Your task to perform on an android device: delete a single message in the gmail app Image 0: 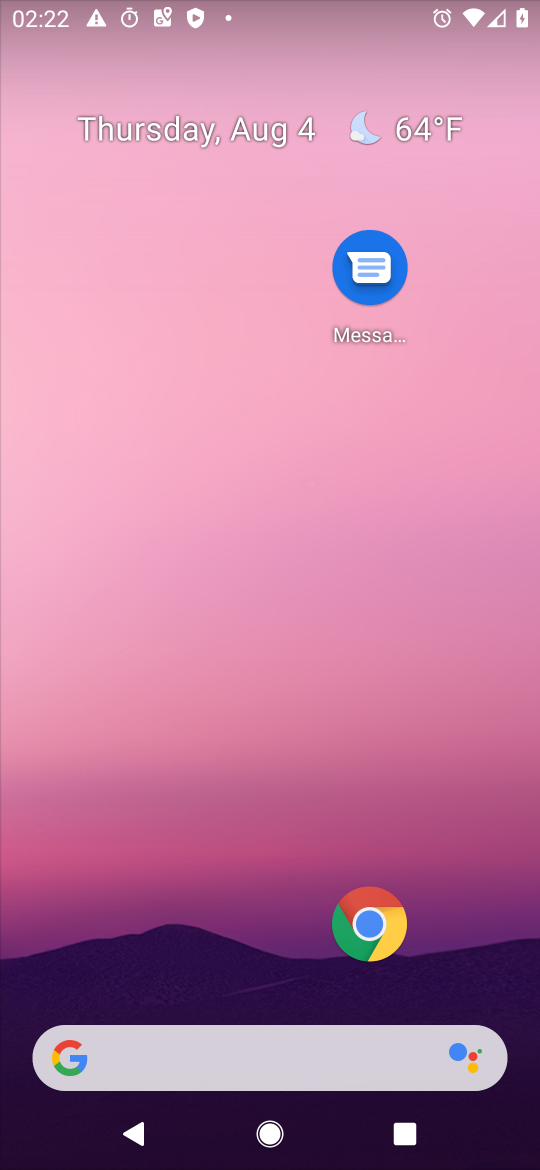
Step 0: press home button
Your task to perform on an android device: delete a single message in the gmail app Image 1: 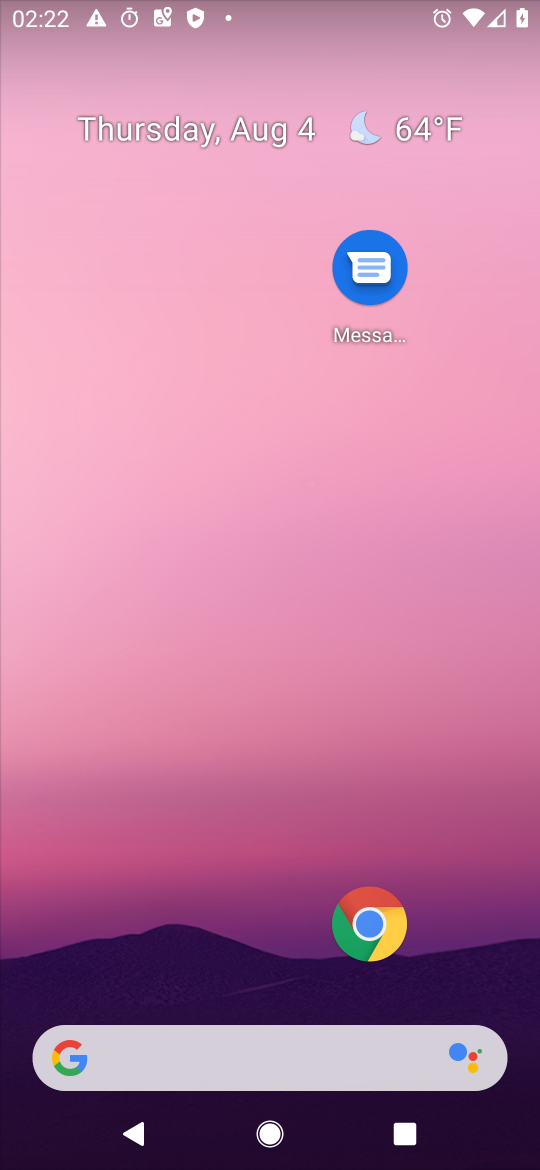
Step 1: drag from (43, 1112) to (384, 271)
Your task to perform on an android device: delete a single message in the gmail app Image 2: 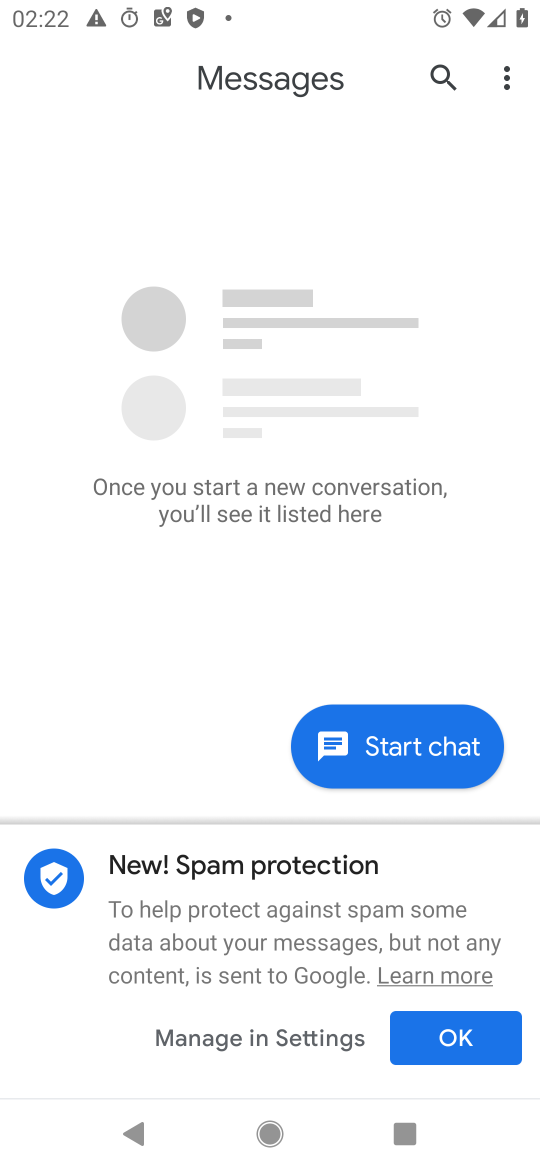
Step 2: press home button
Your task to perform on an android device: delete a single message in the gmail app Image 3: 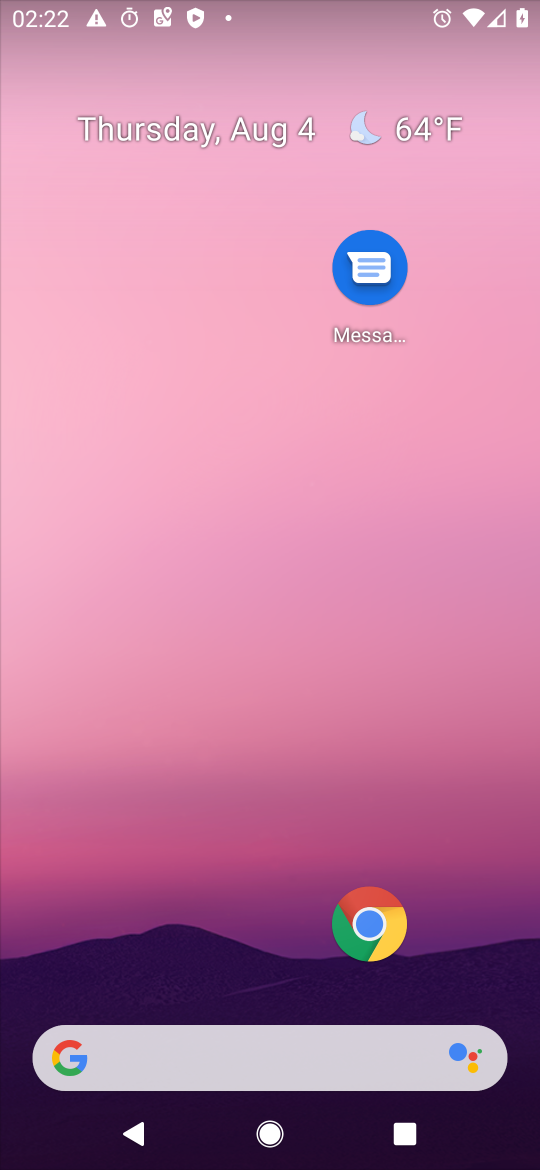
Step 3: drag from (4, 1081) to (391, 9)
Your task to perform on an android device: delete a single message in the gmail app Image 4: 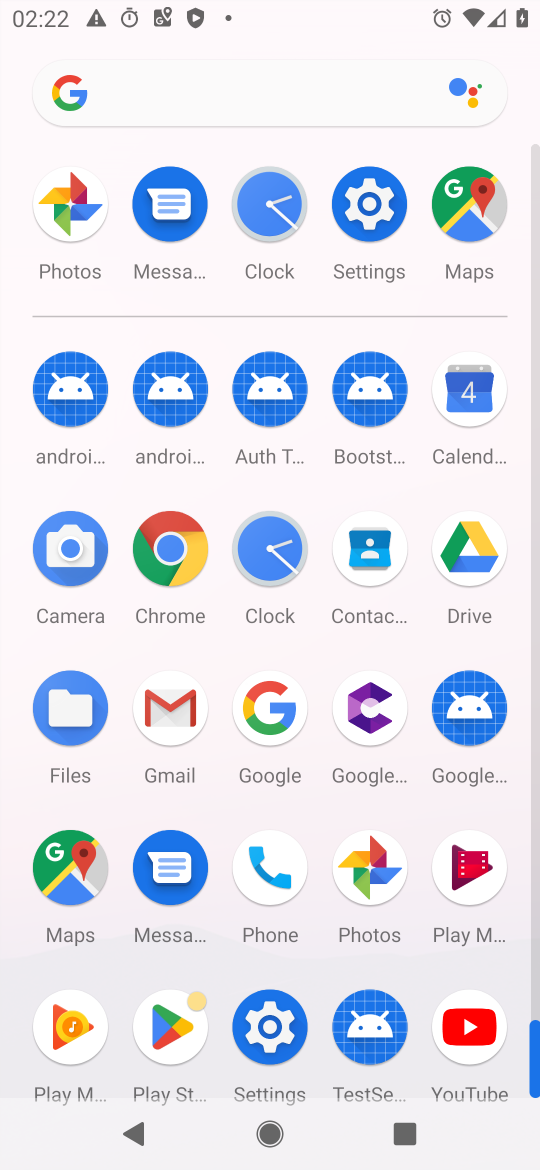
Step 4: click (172, 729)
Your task to perform on an android device: delete a single message in the gmail app Image 5: 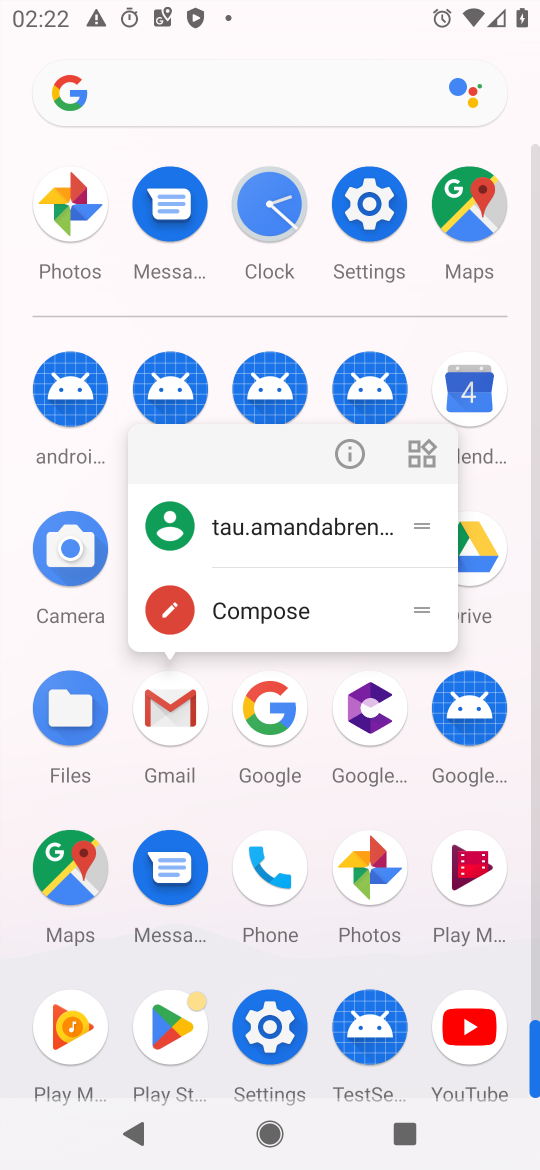
Step 5: click (168, 721)
Your task to perform on an android device: delete a single message in the gmail app Image 6: 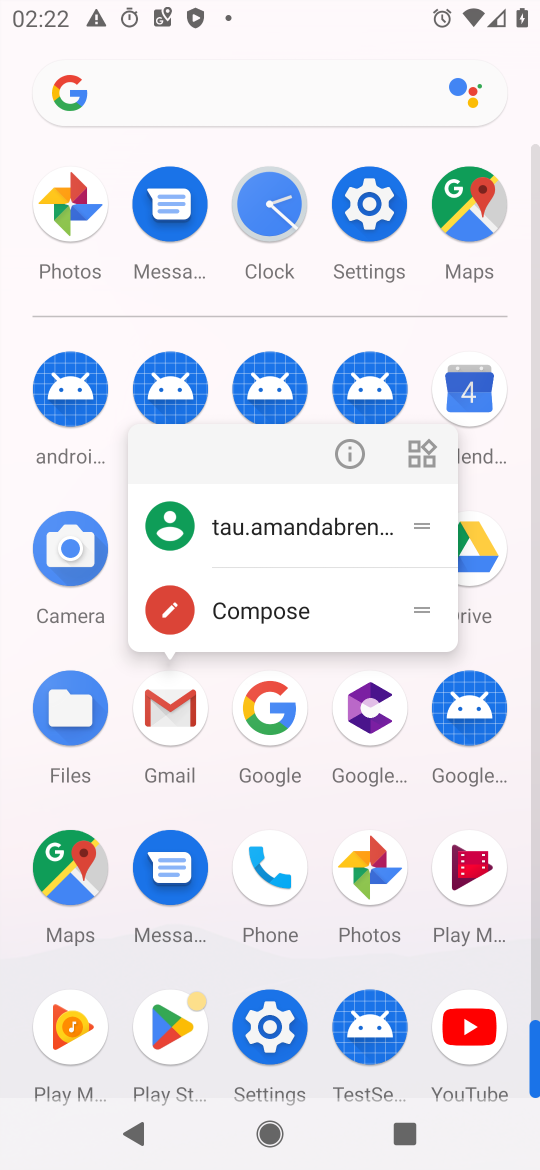
Step 6: click (153, 697)
Your task to perform on an android device: delete a single message in the gmail app Image 7: 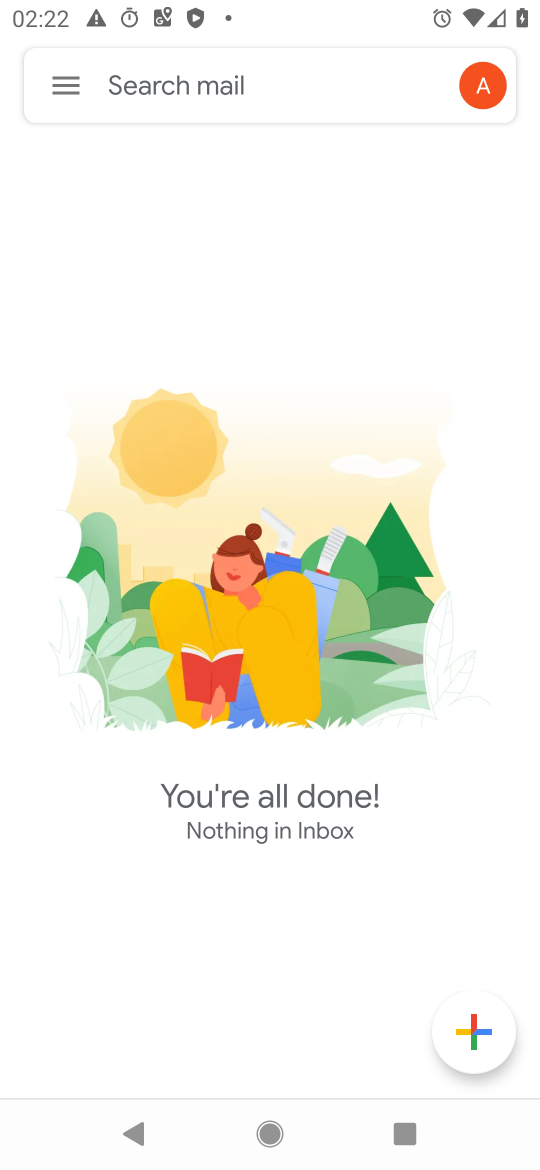
Step 7: click (55, 81)
Your task to perform on an android device: delete a single message in the gmail app Image 8: 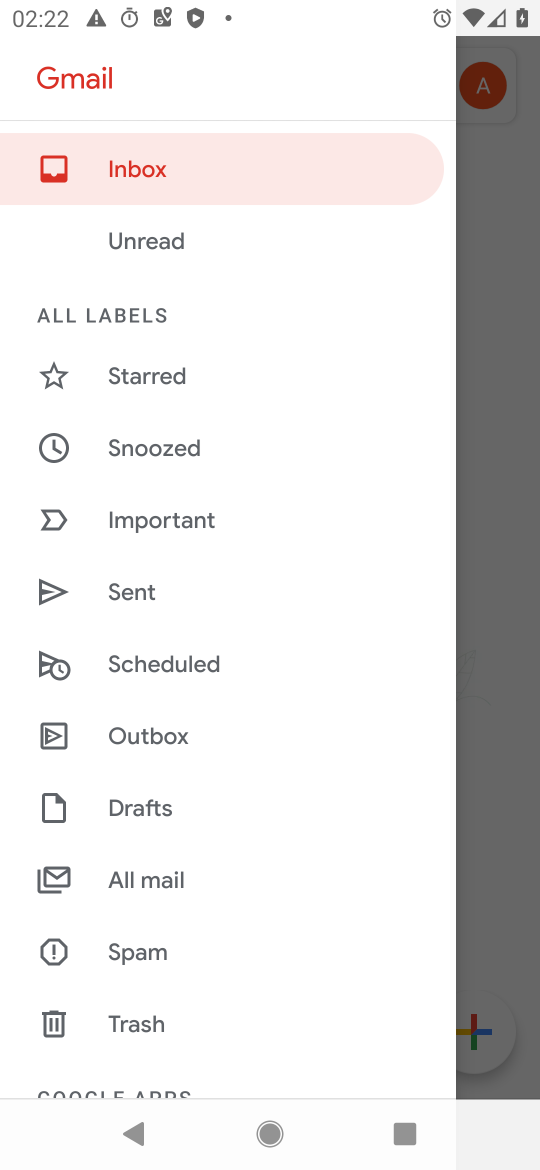
Step 8: click (195, 147)
Your task to perform on an android device: delete a single message in the gmail app Image 9: 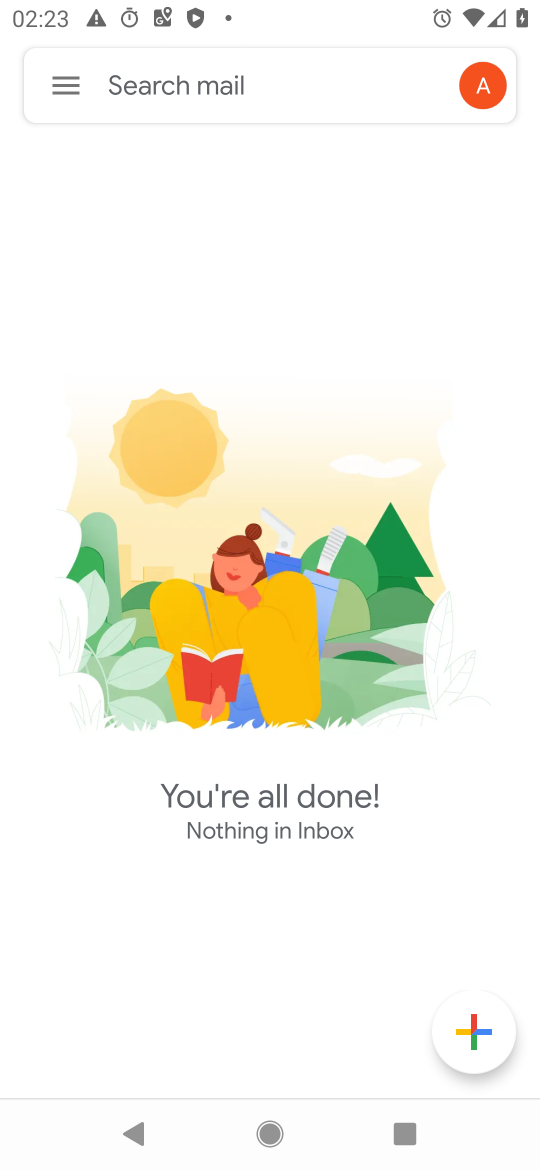
Step 9: task complete